Your task to perform on an android device: read, delete, or share a saved page in the chrome app Image 0: 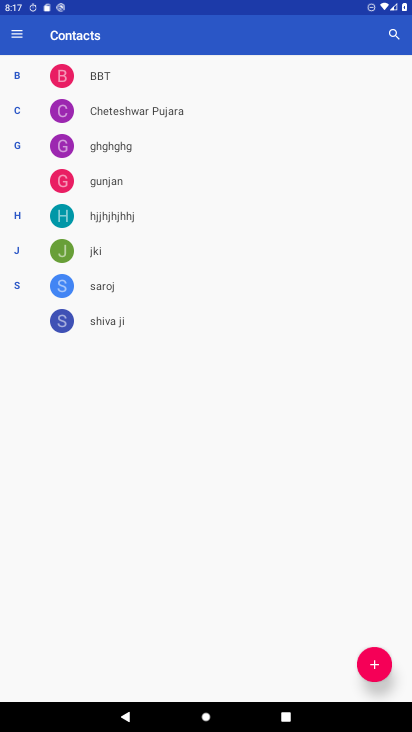
Step 0: press home button
Your task to perform on an android device: read, delete, or share a saved page in the chrome app Image 1: 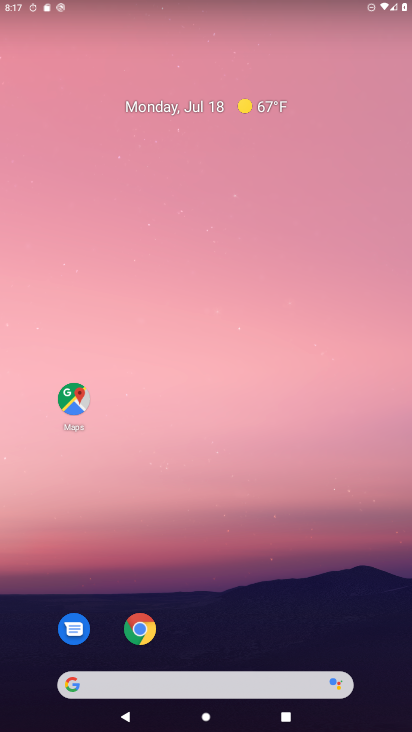
Step 1: drag from (200, 649) to (155, 166)
Your task to perform on an android device: read, delete, or share a saved page in the chrome app Image 2: 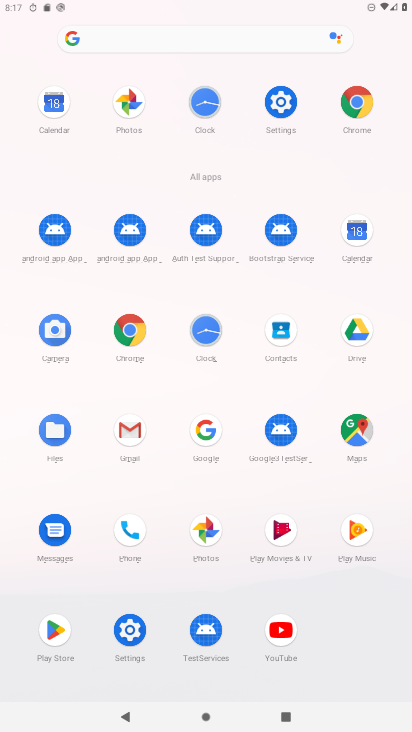
Step 2: click (132, 328)
Your task to perform on an android device: read, delete, or share a saved page in the chrome app Image 3: 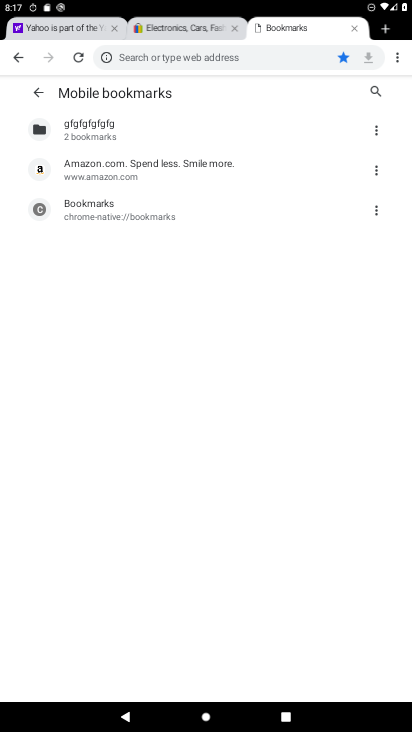
Step 3: task complete